Your task to perform on an android device: Open calendar and show me the second week of next month Image 0: 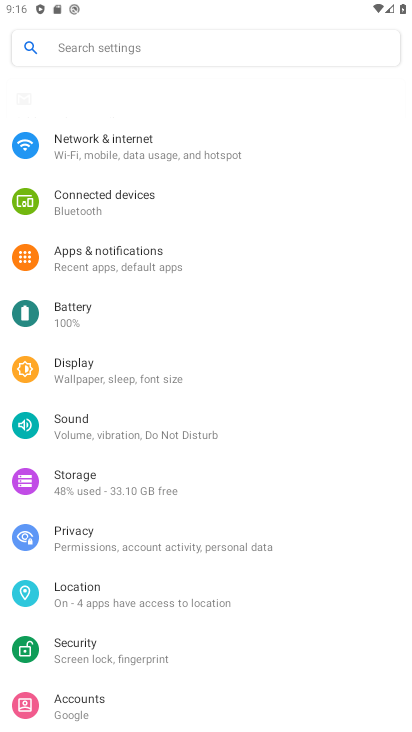
Step 0: drag from (222, 648) to (228, 63)
Your task to perform on an android device: Open calendar and show me the second week of next month Image 1: 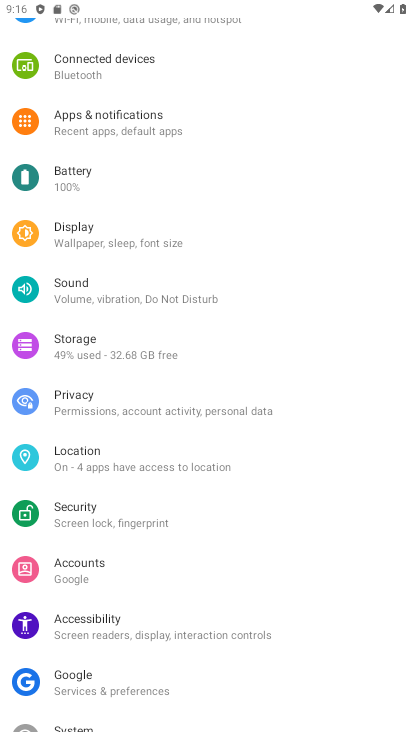
Step 1: press home button
Your task to perform on an android device: Open calendar and show me the second week of next month Image 2: 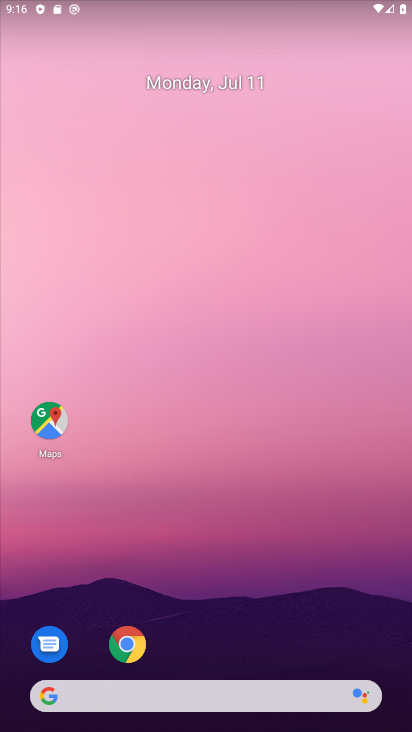
Step 2: drag from (200, 656) to (167, 114)
Your task to perform on an android device: Open calendar and show me the second week of next month Image 3: 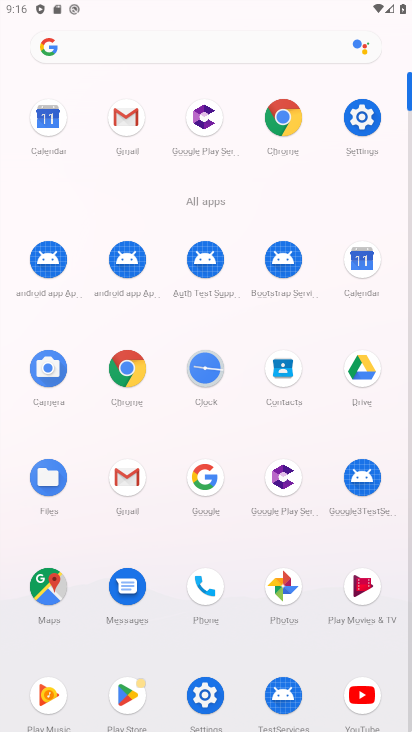
Step 3: click (359, 255)
Your task to perform on an android device: Open calendar and show me the second week of next month Image 4: 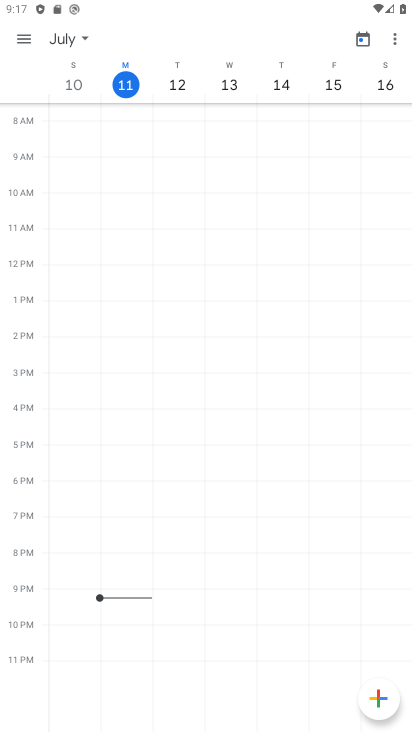
Step 4: drag from (337, 82) to (71, 75)
Your task to perform on an android device: Open calendar and show me the second week of next month Image 5: 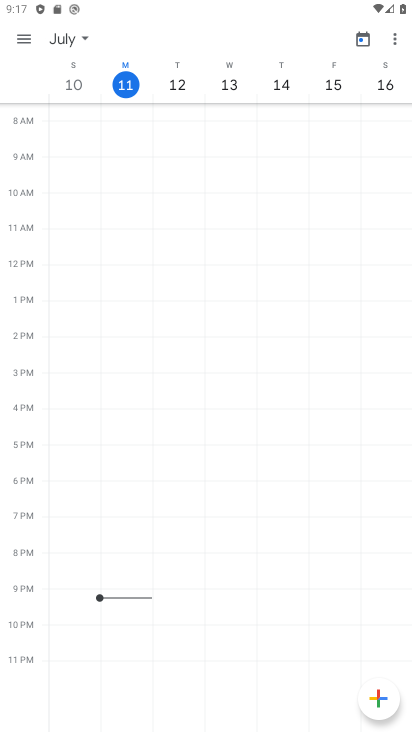
Step 5: drag from (383, 80) to (7, 95)
Your task to perform on an android device: Open calendar and show me the second week of next month Image 6: 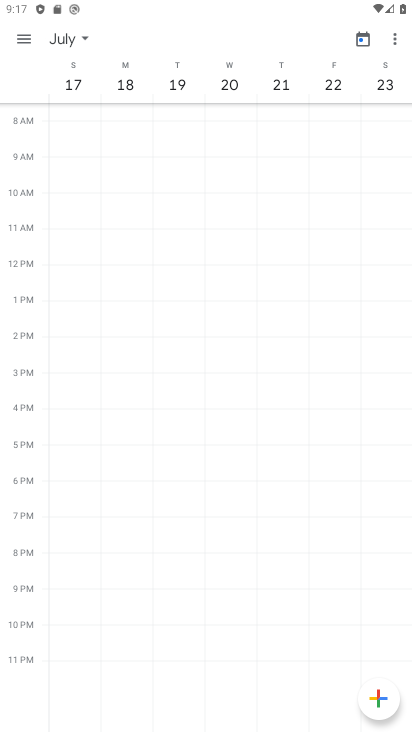
Step 6: drag from (386, 85) to (35, 74)
Your task to perform on an android device: Open calendar and show me the second week of next month Image 7: 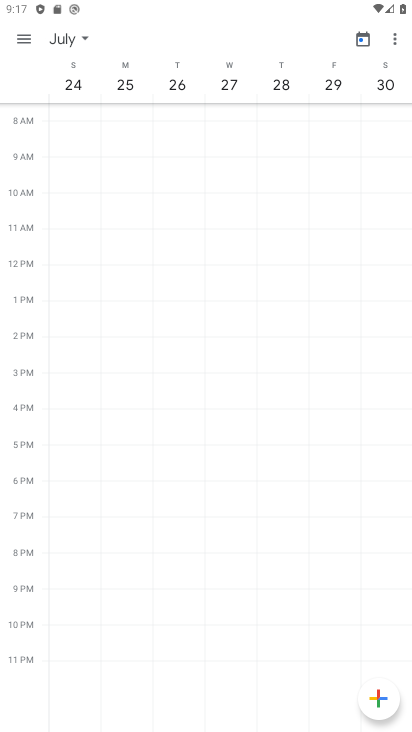
Step 7: drag from (382, 88) to (3, 104)
Your task to perform on an android device: Open calendar and show me the second week of next month Image 8: 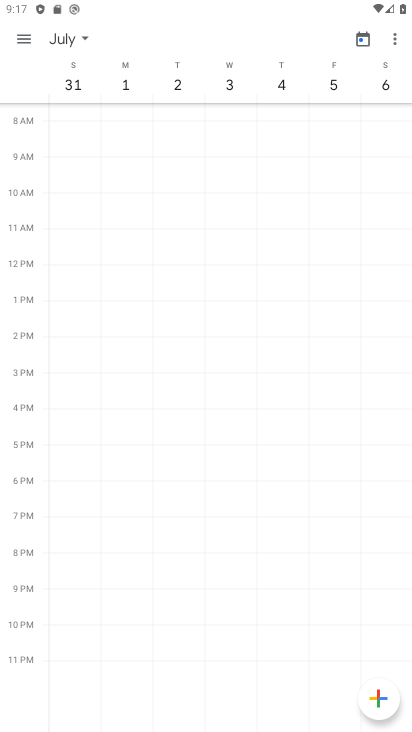
Step 8: drag from (387, 87) to (42, 86)
Your task to perform on an android device: Open calendar and show me the second week of next month Image 9: 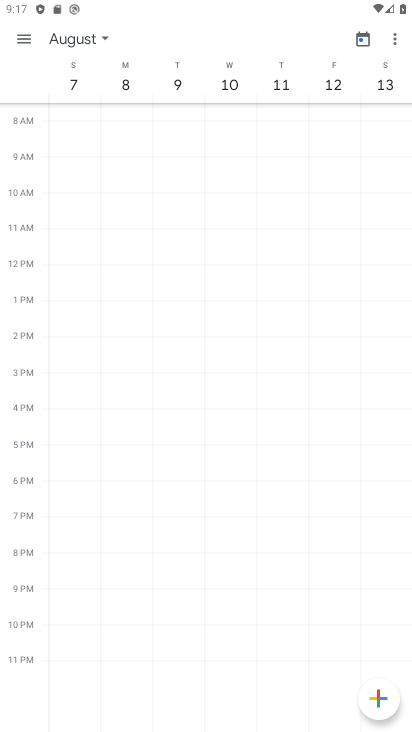
Step 9: click (66, 83)
Your task to perform on an android device: Open calendar and show me the second week of next month Image 10: 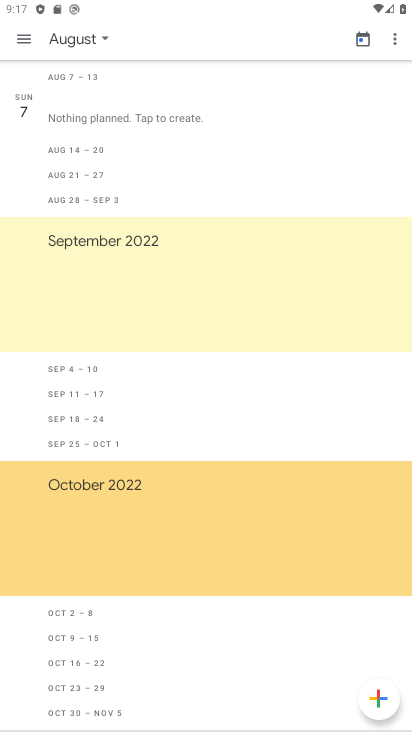
Step 10: task complete